Your task to perform on an android device: Go to ESPN.com Image 0: 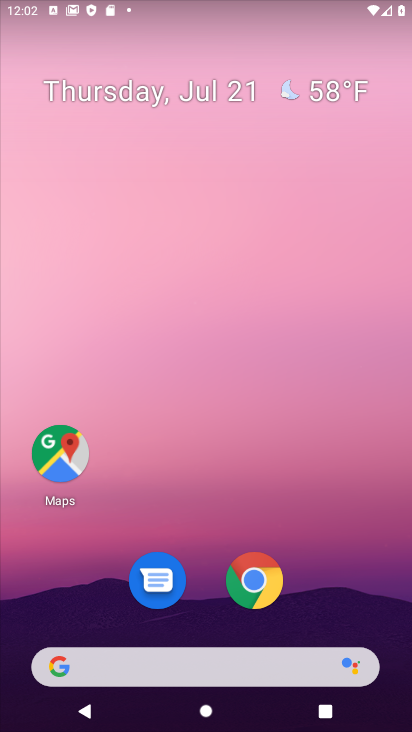
Step 0: drag from (310, 117) to (27, 207)
Your task to perform on an android device: Go to ESPN.com Image 1: 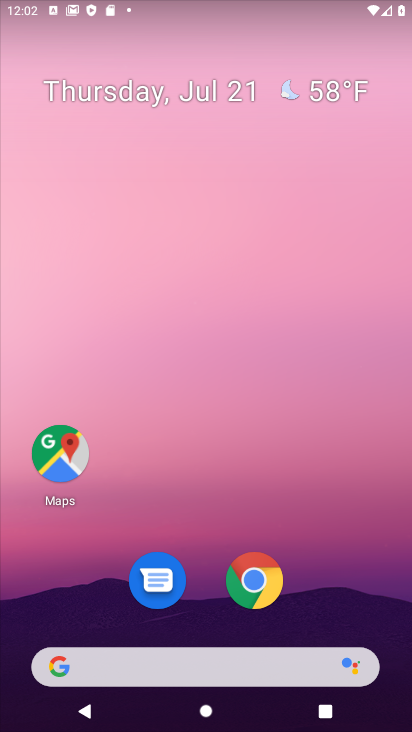
Step 1: drag from (335, 190) to (351, 0)
Your task to perform on an android device: Go to ESPN.com Image 2: 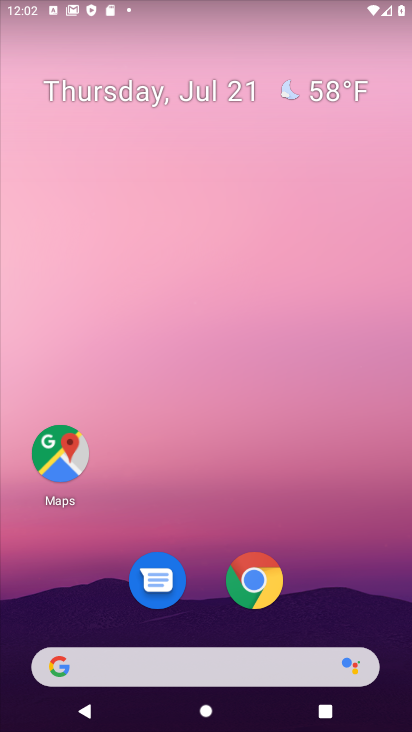
Step 2: drag from (294, 106) to (295, 0)
Your task to perform on an android device: Go to ESPN.com Image 3: 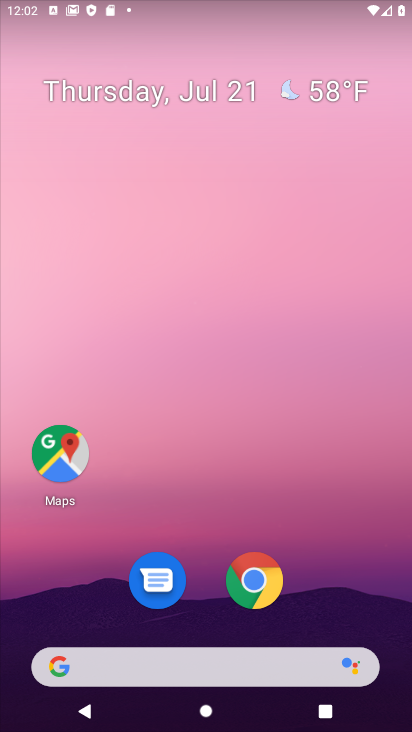
Step 3: drag from (362, 561) to (275, 7)
Your task to perform on an android device: Go to ESPN.com Image 4: 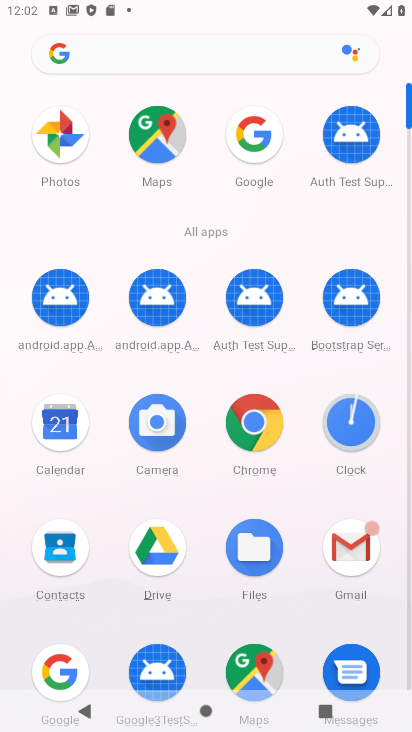
Step 4: click (275, 434)
Your task to perform on an android device: Go to ESPN.com Image 5: 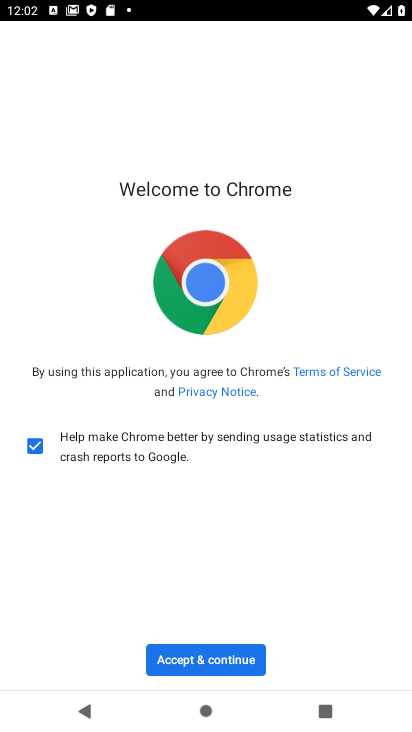
Step 5: click (230, 663)
Your task to perform on an android device: Go to ESPN.com Image 6: 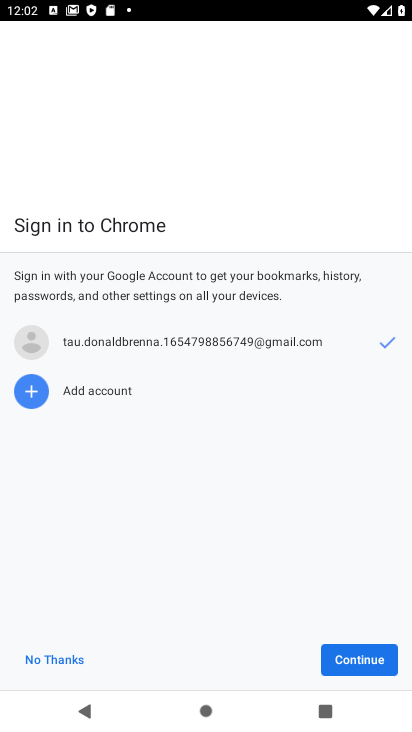
Step 6: click (75, 662)
Your task to perform on an android device: Go to ESPN.com Image 7: 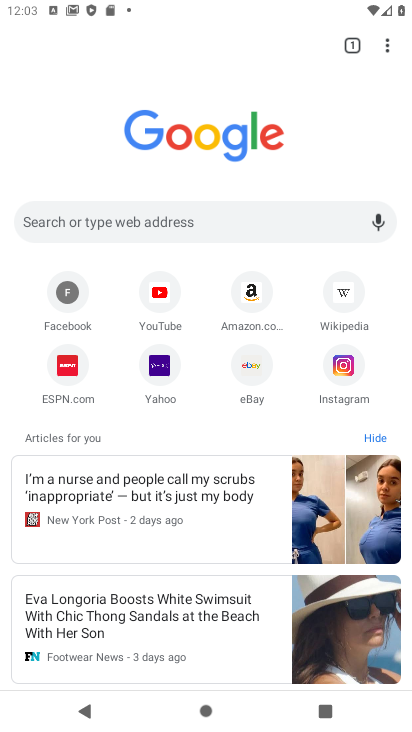
Step 7: click (66, 386)
Your task to perform on an android device: Go to ESPN.com Image 8: 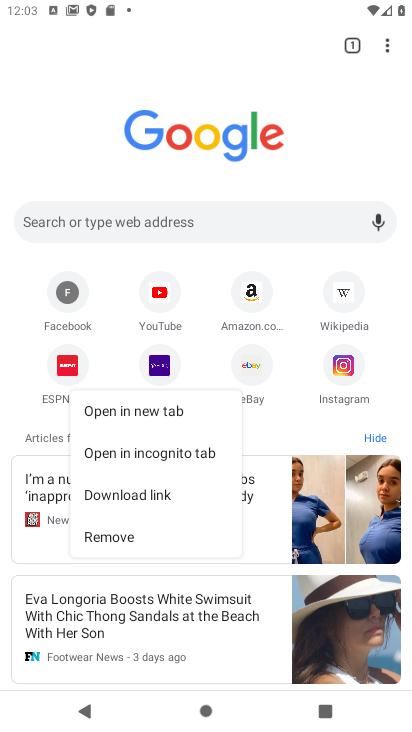
Step 8: click (62, 363)
Your task to perform on an android device: Go to ESPN.com Image 9: 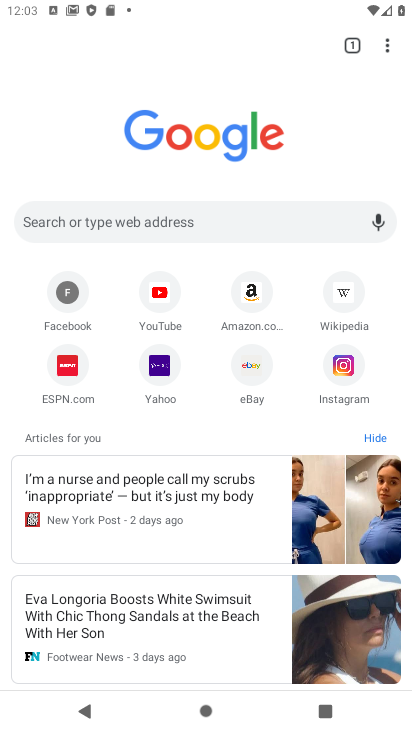
Step 9: click (72, 373)
Your task to perform on an android device: Go to ESPN.com Image 10: 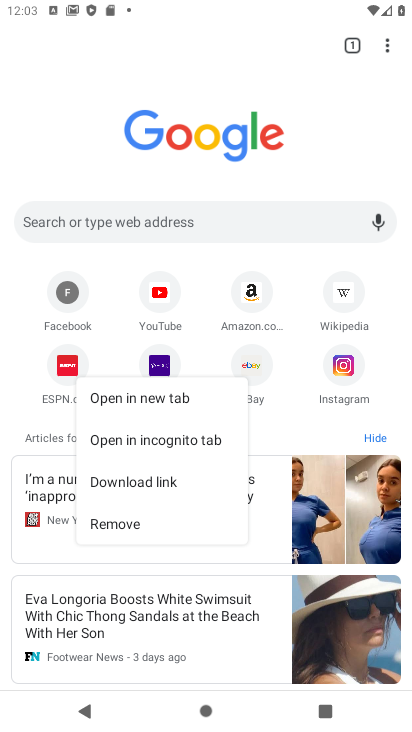
Step 10: click (69, 365)
Your task to perform on an android device: Go to ESPN.com Image 11: 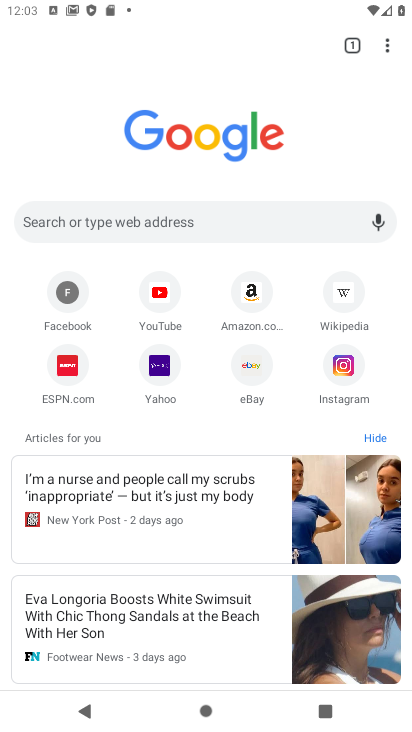
Step 11: click (71, 367)
Your task to perform on an android device: Go to ESPN.com Image 12: 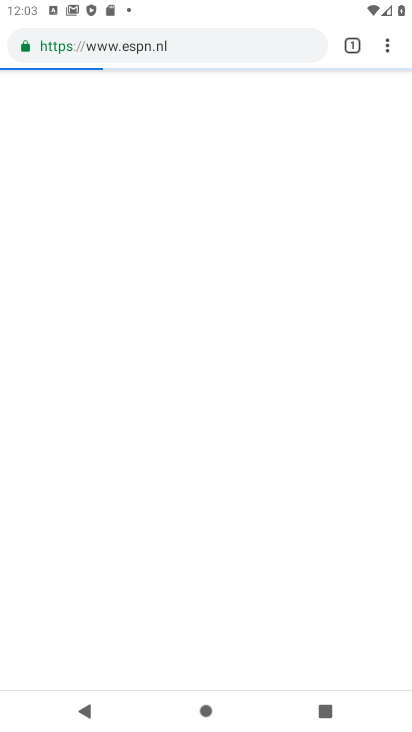
Step 12: task complete